Your task to perform on an android device: change notifications settings Image 0: 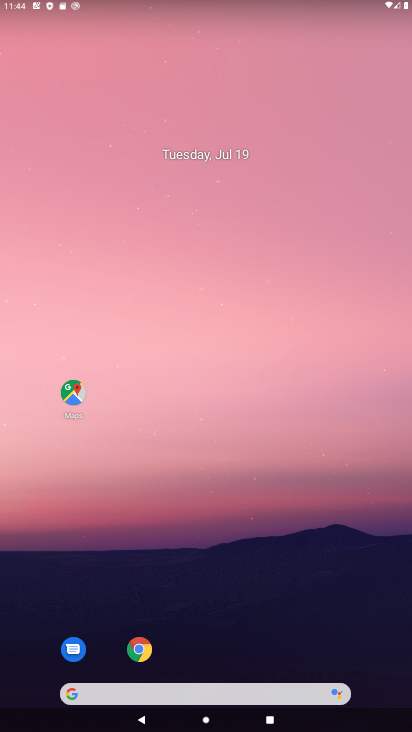
Step 0: drag from (85, 591) to (324, 20)
Your task to perform on an android device: change notifications settings Image 1: 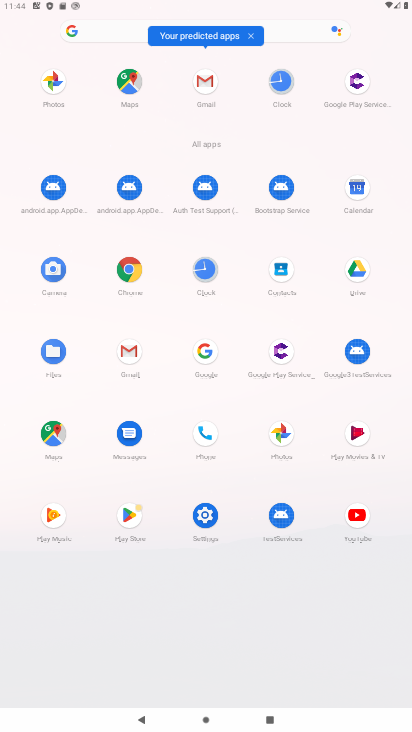
Step 1: click (203, 512)
Your task to perform on an android device: change notifications settings Image 2: 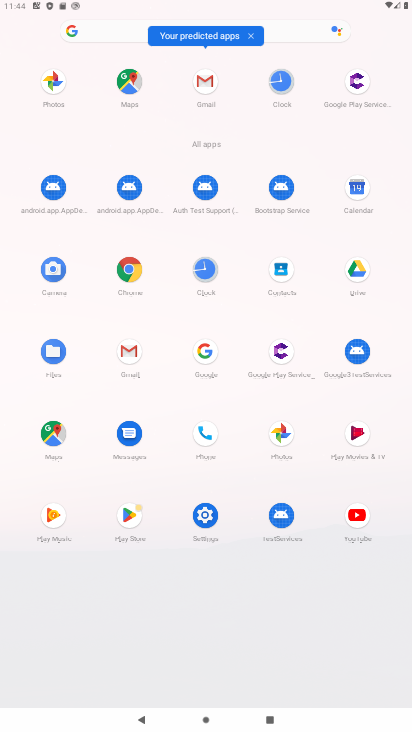
Step 2: click (203, 512)
Your task to perform on an android device: change notifications settings Image 3: 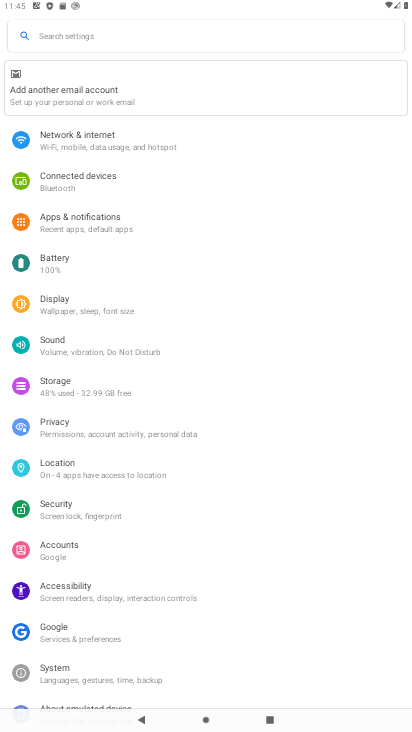
Step 3: click (99, 223)
Your task to perform on an android device: change notifications settings Image 4: 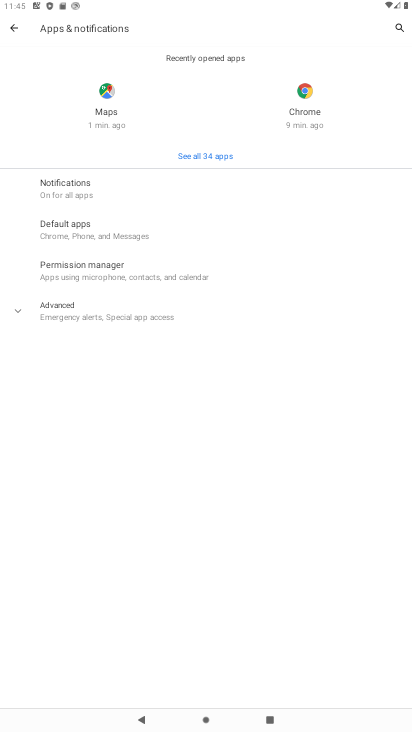
Step 4: click (93, 192)
Your task to perform on an android device: change notifications settings Image 5: 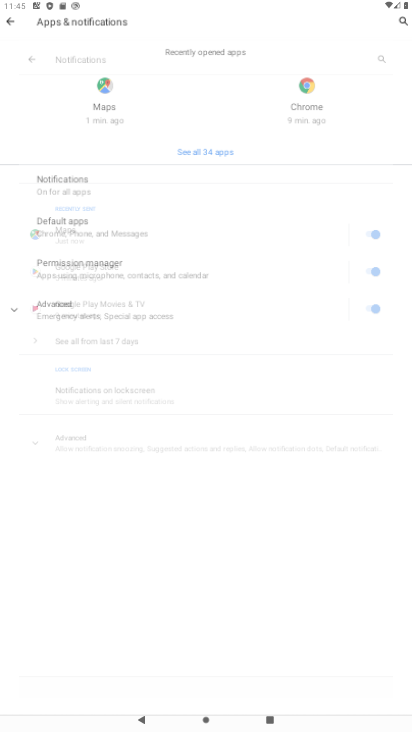
Step 5: click (171, 194)
Your task to perform on an android device: change notifications settings Image 6: 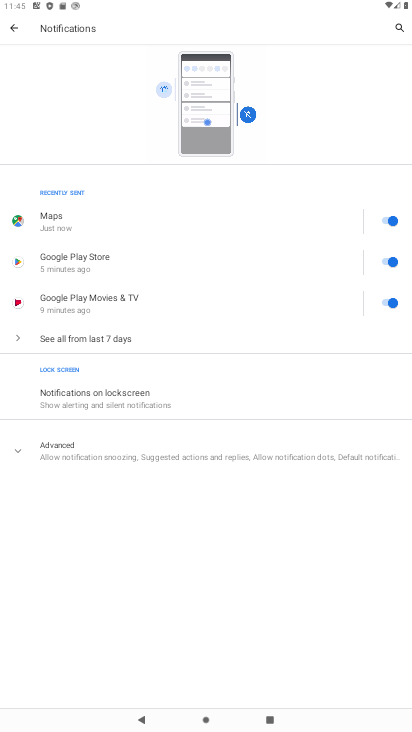
Step 6: click (395, 216)
Your task to perform on an android device: change notifications settings Image 7: 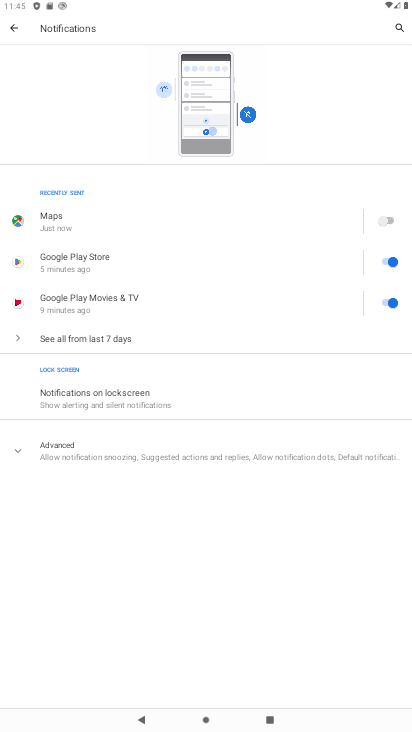
Step 7: task complete